Your task to perform on an android device: turn on location history Image 0: 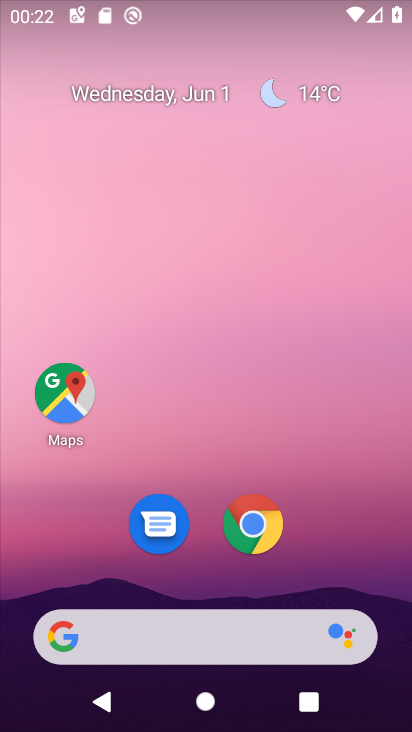
Step 0: drag from (288, 440) to (255, 1)
Your task to perform on an android device: turn on location history Image 1: 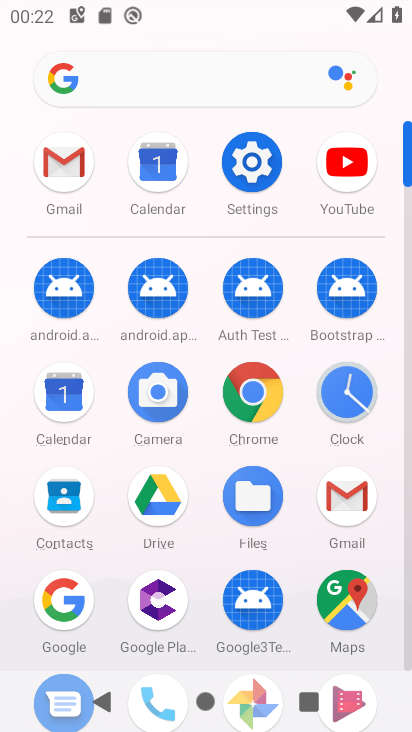
Step 1: click (251, 165)
Your task to perform on an android device: turn on location history Image 2: 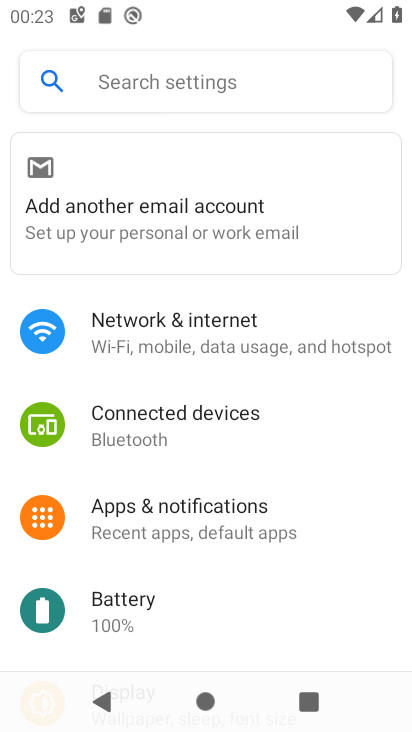
Step 2: drag from (228, 546) to (240, 131)
Your task to perform on an android device: turn on location history Image 3: 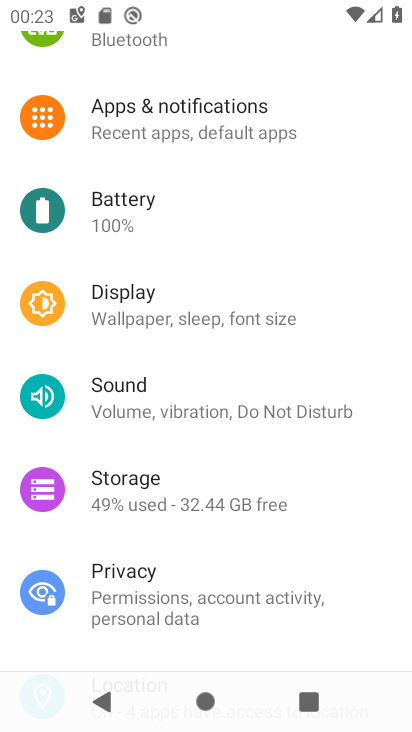
Step 3: drag from (182, 413) to (226, 108)
Your task to perform on an android device: turn on location history Image 4: 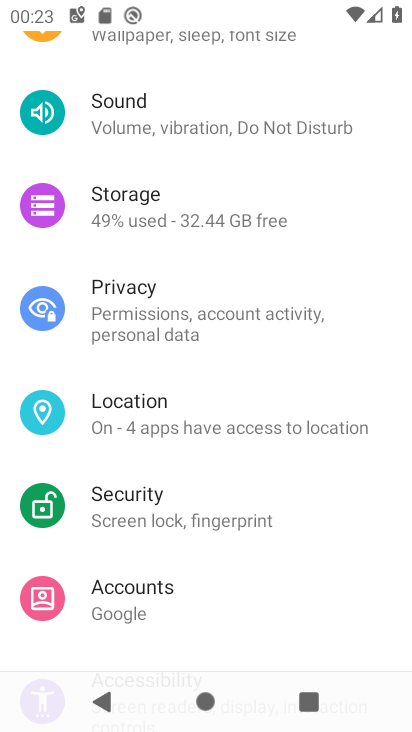
Step 4: click (194, 409)
Your task to perform on an android device: turn on location history Image 5: 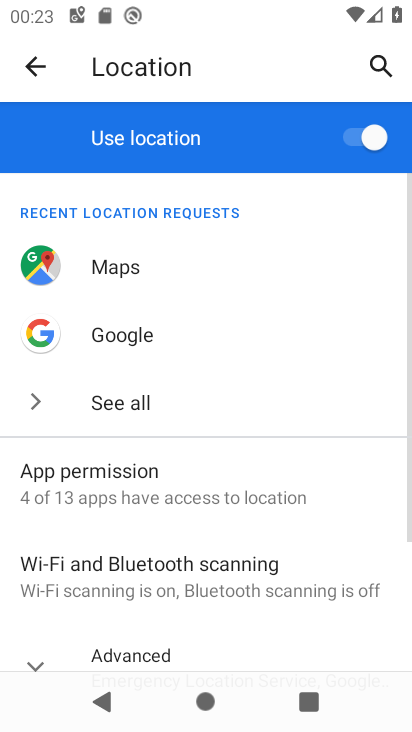
Step 5: drag from (206, 533) to (240, 244)
Your task to perform on an android device: turn on location history Image 6: 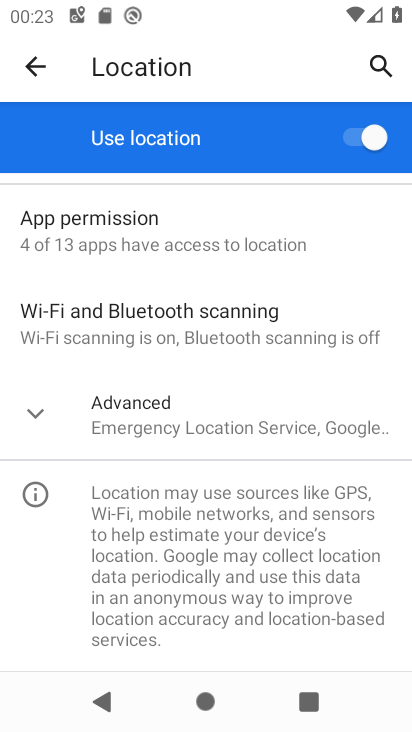
Step 6: click (44, 417)
Your task to perform on an android device: turn on location history Image 7: 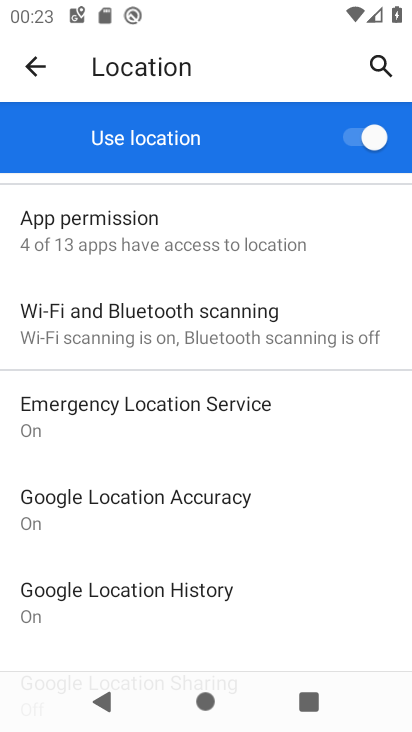
Step 7: task complete